Your task to perform on an android device: Open eBay Image 0: 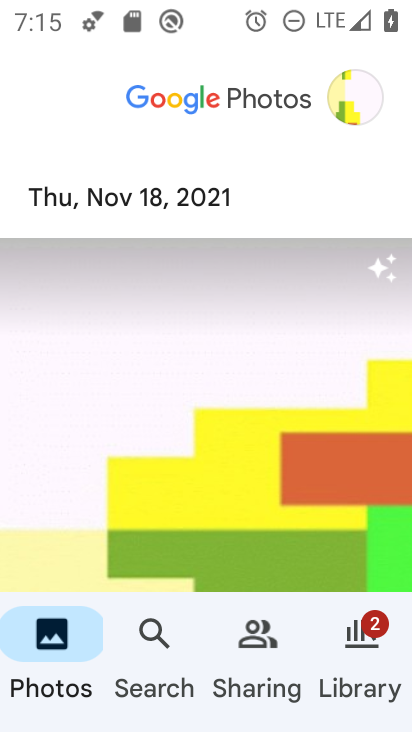
Step 0: press home button
Your task to perform on an android device: Open eBay Image 1: 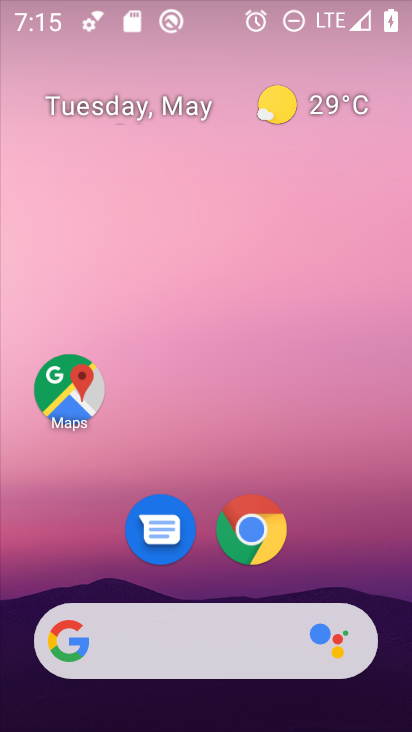
Step 1: drag from (393, 642) to (251, 52)
Your task to perform on an android device: Open eBay Image 2: 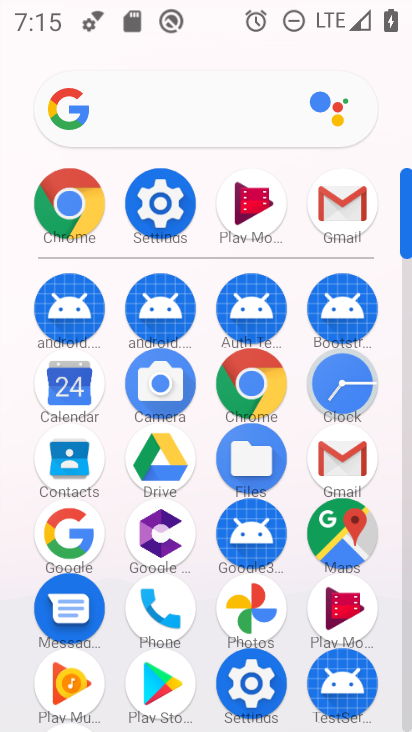
Step 2: click (82, 536)
Your task to perform on an android device: Open eBay Image 3: 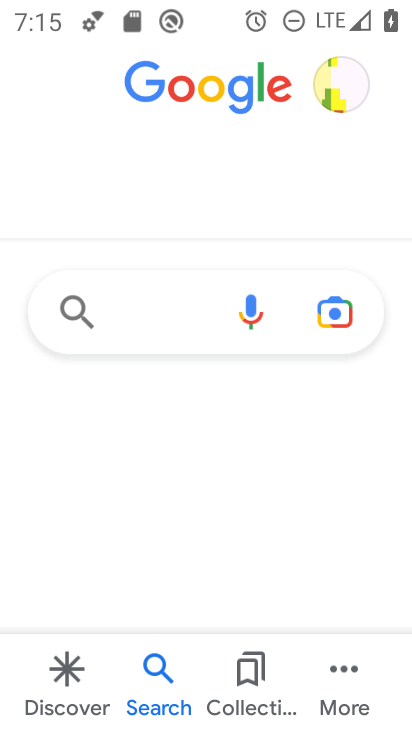
Step 3: click (139, 324)
Your task to perform on an android device: Open eBay Image 4: 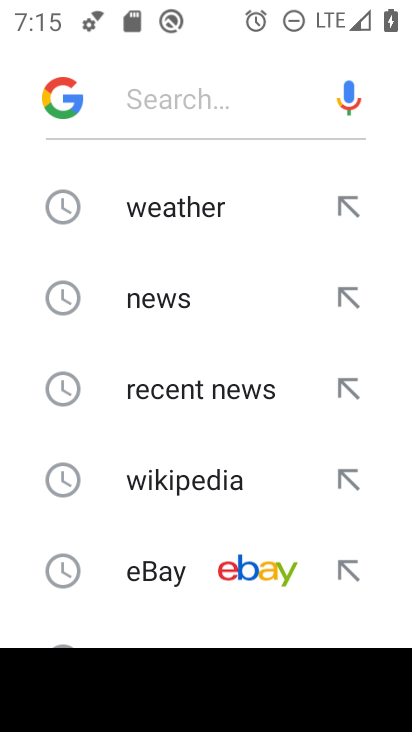
Step 4: click (145, 572)
Your task to perform on an android device: Open eBay Image 5: 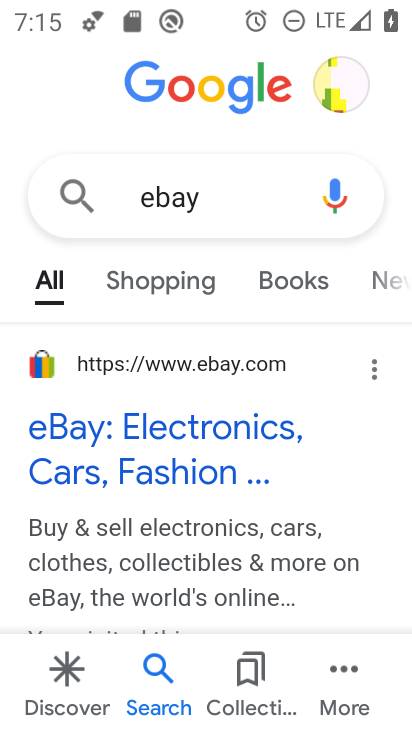
Step 5: task complete